Your task to perform on an android device: What is the recent news? Image 0: 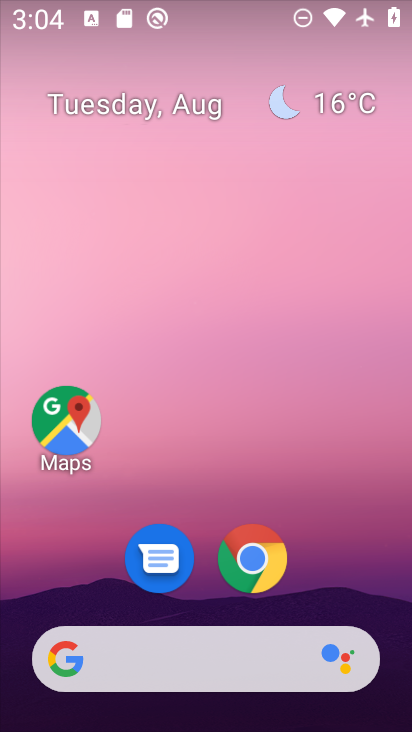
Step 0: drag from (223, 489) to (227, 0)
Your task to perform on an android device: What is the recent news? Image 1: 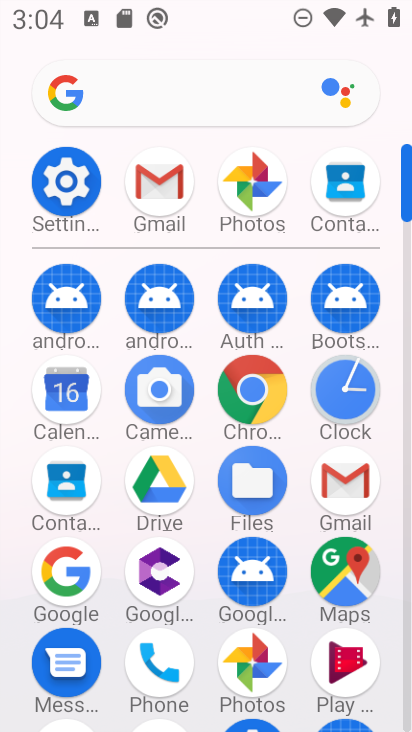
Step 1: click (64, 593)
Your task to perform on an android device: What is the recent news? Image 2: 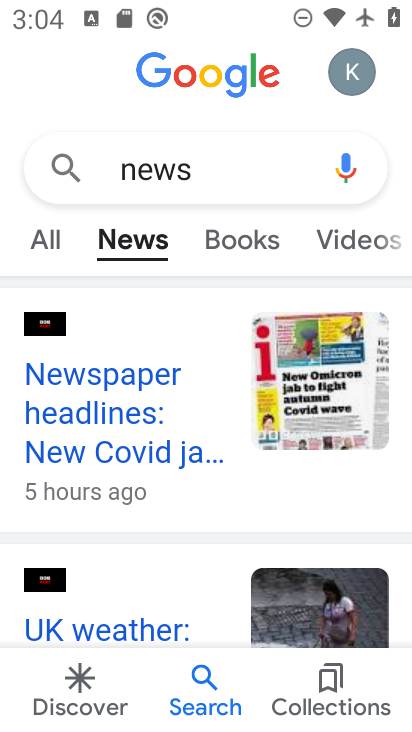
Step 2: task complete